Your task to perform on an android device: Open notification settings Image 0: 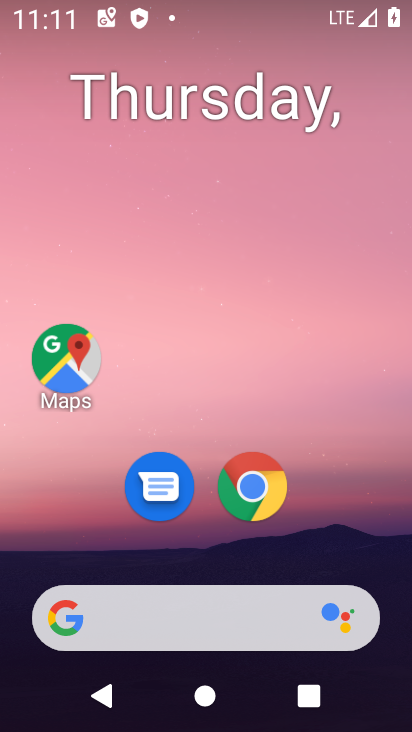
Step 0: drag from (183, 571) to (268, 55)
Your task to perform on an android device: Open notification settings Image 1: 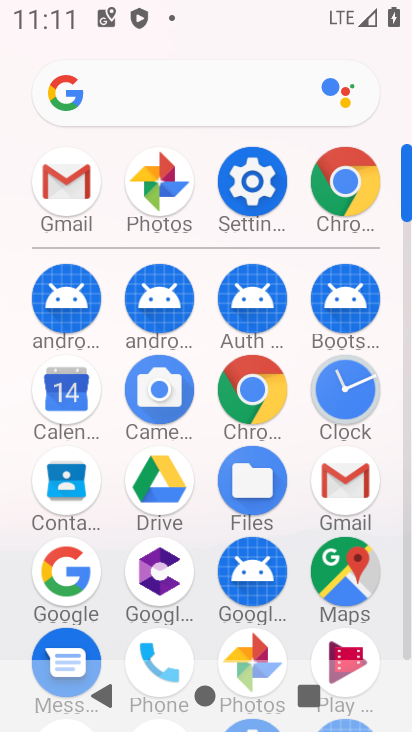
Step 1: click (244, 192)
Your task to perform on an android device: Open notification settings Image 2: 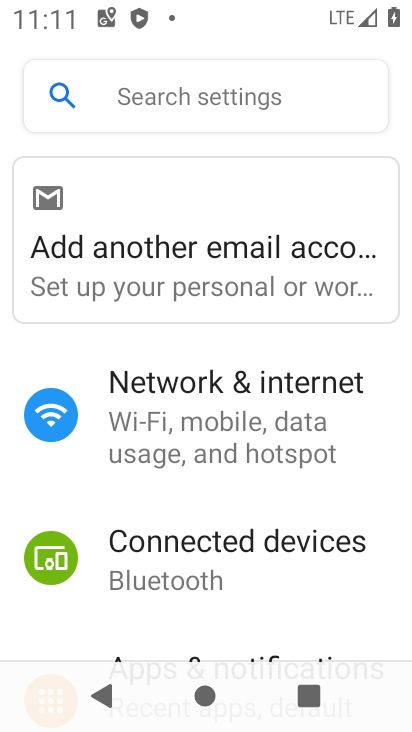
Step 2: drag from (205, 592) to (281, 360)
Your task to perform on an android device: Open notification settings Image 3: 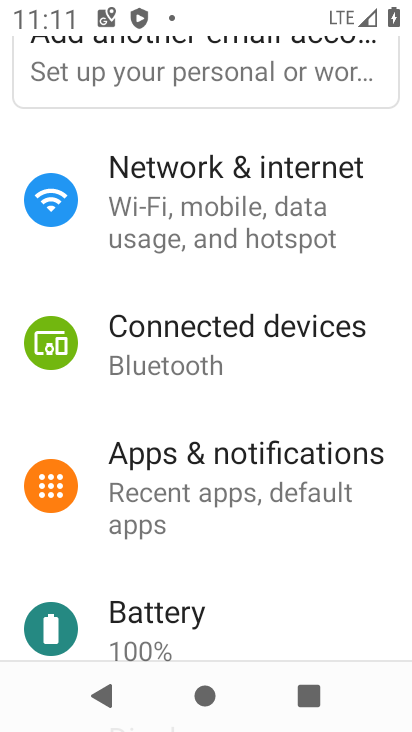
Step 3: click (241, 479)
Your task to perform on an android device: Open notification settings Image 4: 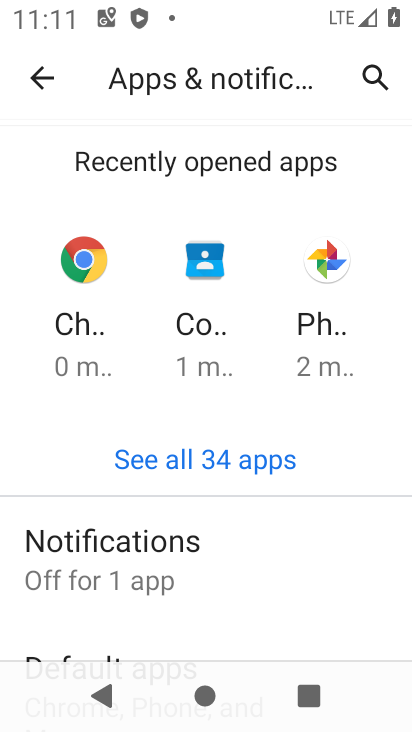
Step 4: task complete